Your task to perform on an android device: Open settings on Google Maps Image 0: 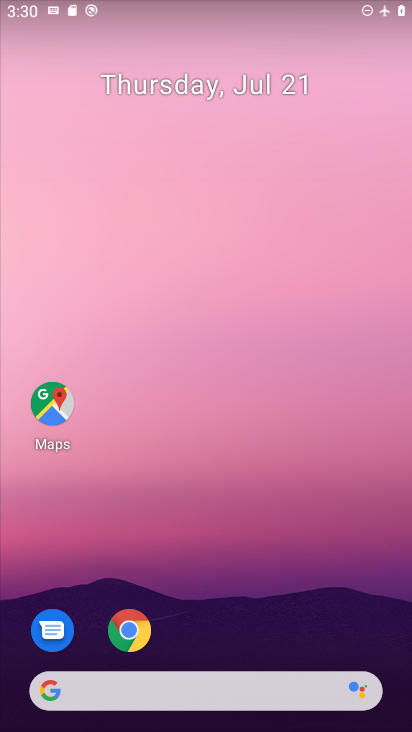
Step 0: click (71, 401)
Your task to perform on an android device: Open settings on Google Maps Image 1: 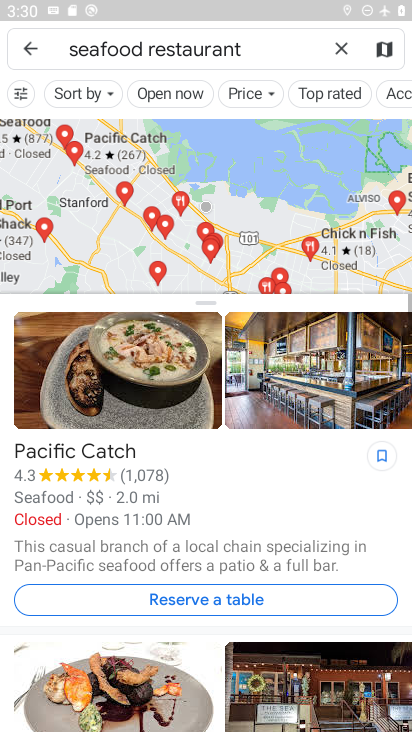
Step 1: click (29, 40)
Your task to perform on an android device: Open settings on Google Maps Image 2: 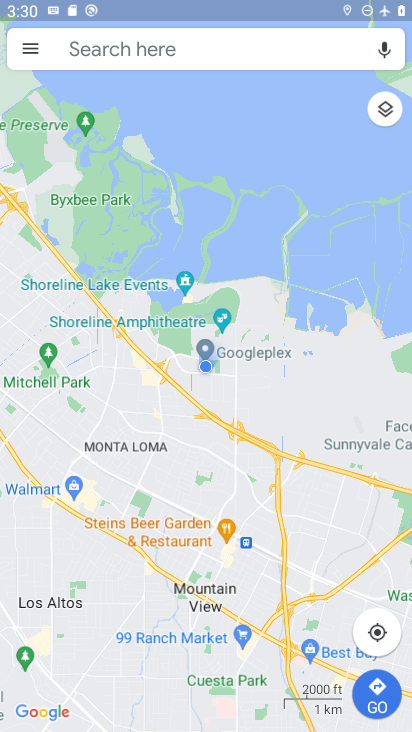
Step 2: click (26, 47)
Your task to perform on an android device: Open settings on Google Maps Image 3: 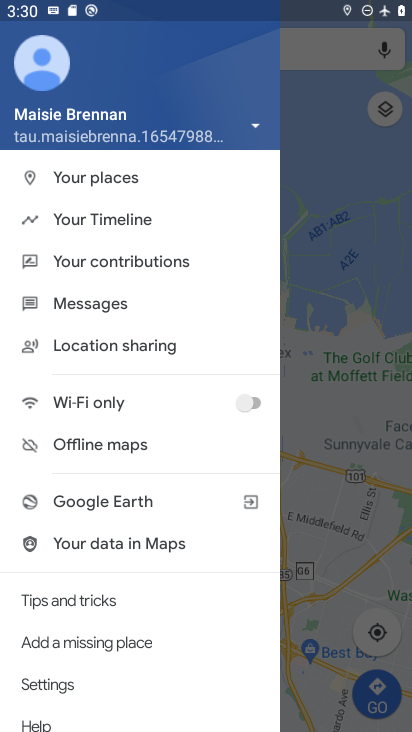
Step 3: click (71, 676)
Your task to perform on an android device: Open settings on Google Maps Image 4: 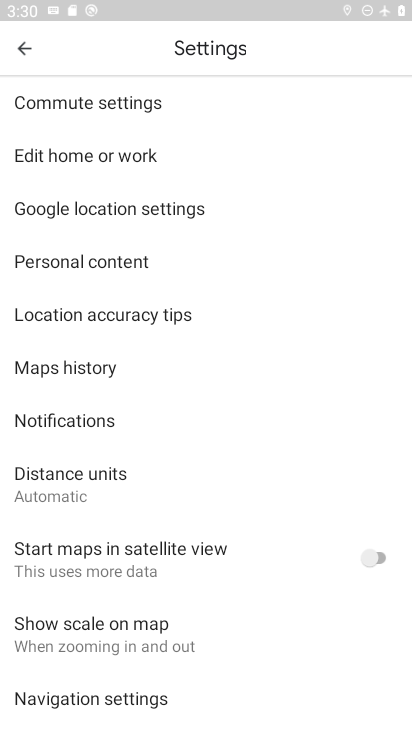
Step 4: task complete